Your task to perform on an android device: Open Reddit.com Image 0: 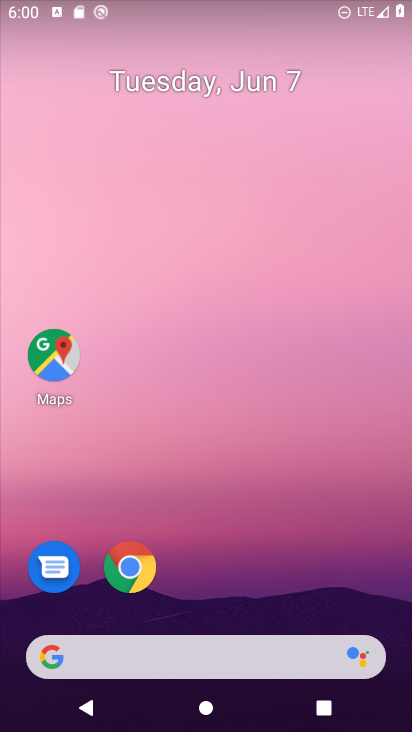
Step 0: drag from (263, 640) to (301, 115)
Your task to perform on an android device: Open Reddit.com Image 1: 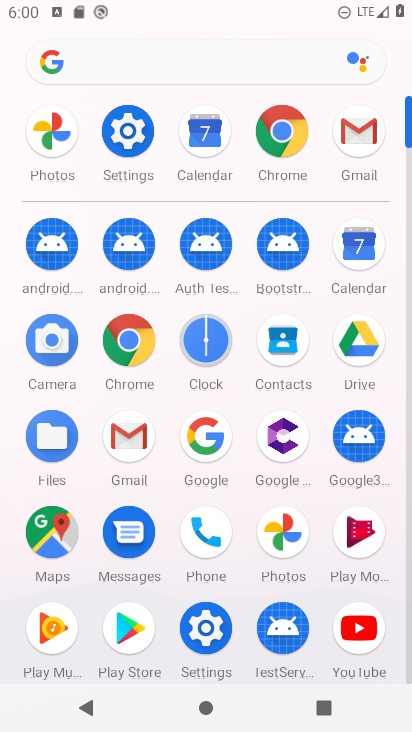
Step 1: click (119, 293)
Your task to perform on an android device: Open Reddit.com Image 2: 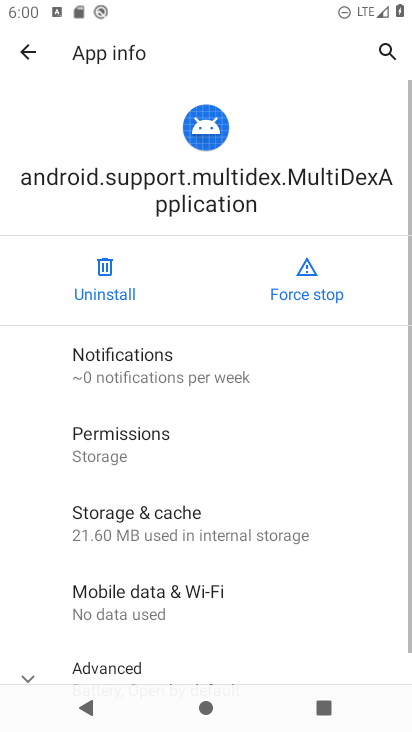
Step 2: click (120, 328)
Your task to perform on an android device: Open Reddit.com Image 3: 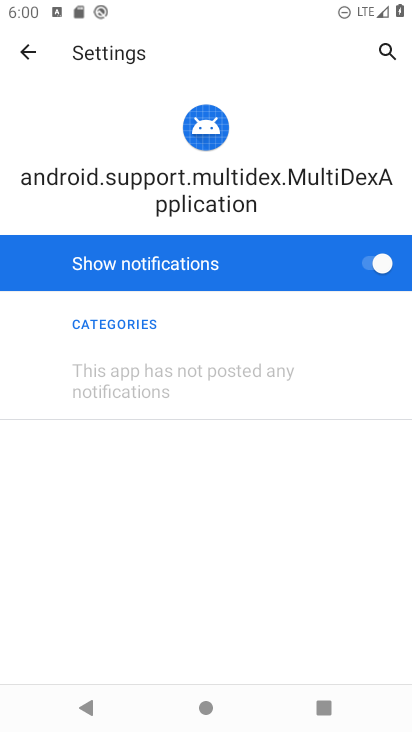
Step 3: press back button
Your task to perform on an android device: Open Reddit.com Image 4: 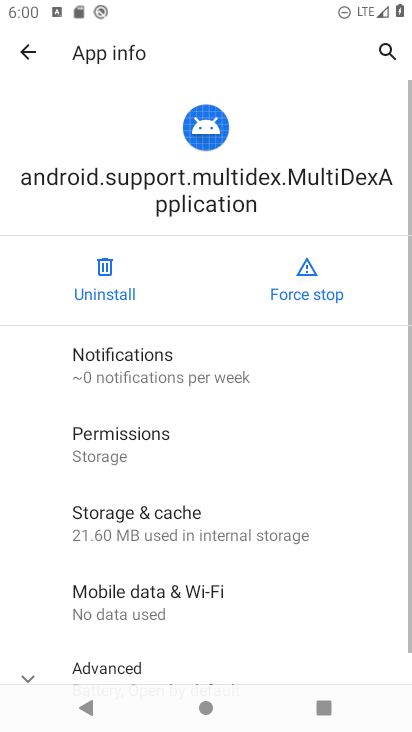
Step 4: press back button
Your task to perform on an android device: Open Reddit.com Image 5: 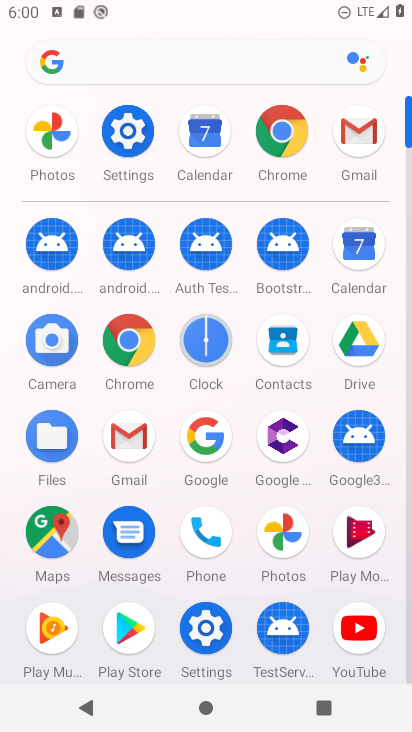
Step 5: click (127, 356)
Your task to perform on an android device: Open Reddit.com Image 6: 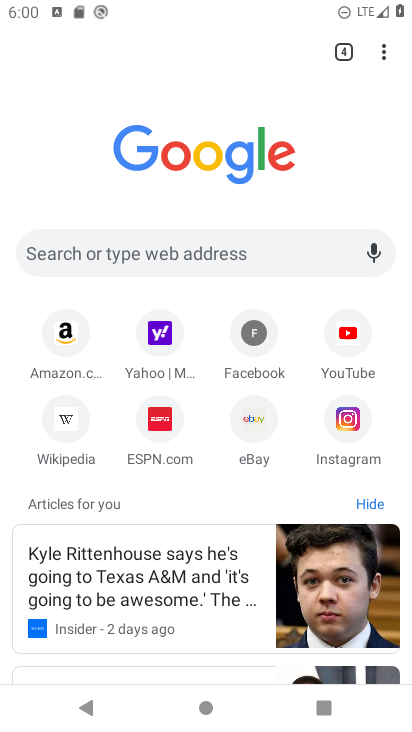
Step 6: click (157, 249)
Your task to perform on an android device: Open Reddit.com Image 7: 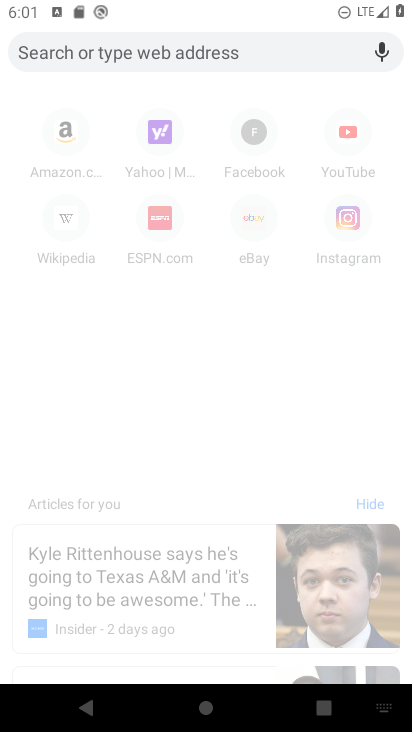
Step 7: type "reddit.com"
Your task to perform on an android device: Open Reddit.com Image 8: 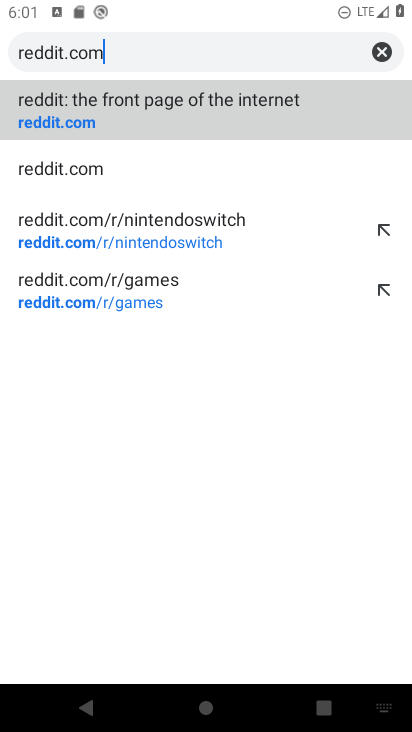
Step 8: click (103, 102)
Your task to perform on an android device: Open Reddit.com Image 9: 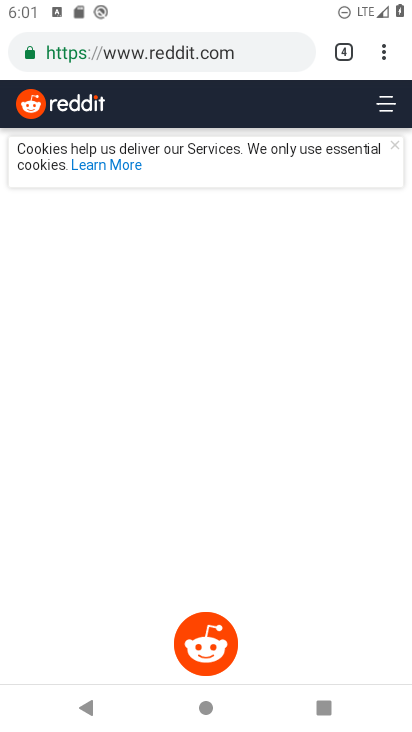
Step 9: task complete